Your task to perform on an android device: Go to Android settings Image 0: 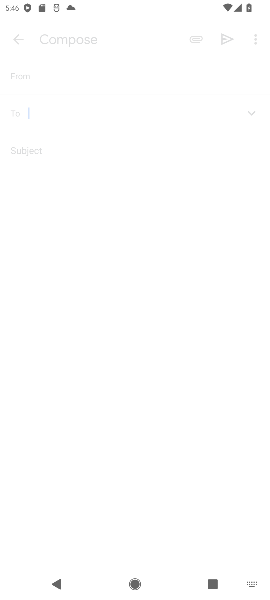
Step 0: press home button
Your task to perform on an android device: Go to Android settings Image 1: 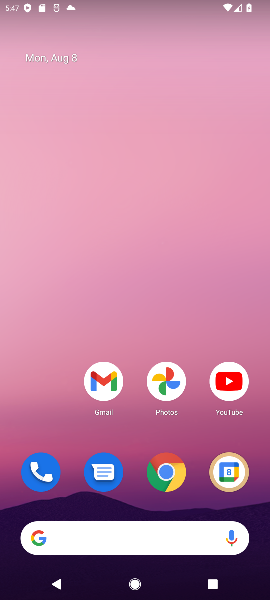
Step 1: drag from (131, 492) to (157, 10)
Your task to perform on an android device: Go to Android settings Image 2: 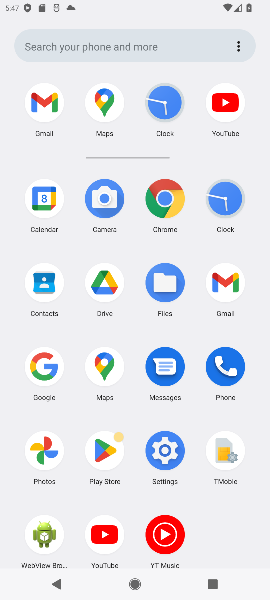
Step 2: click (164, 457)
Your task to perform on an android device: Go to Android settings Image 3: 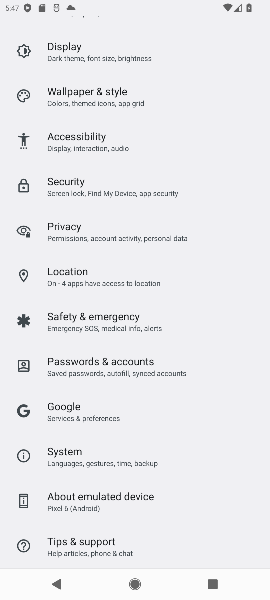
Step 3: task complete